Your task to perform on an android device: turn on improve location accuracy Image 0: 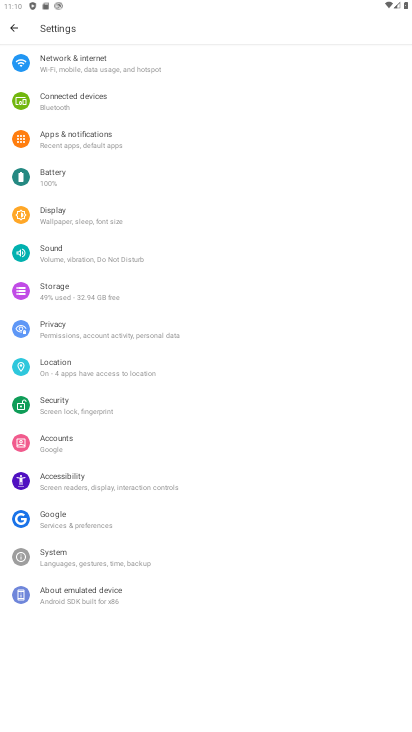
Step 0: press home button
Your task to perform on an android device: turn on improve location accuracy Image 1: 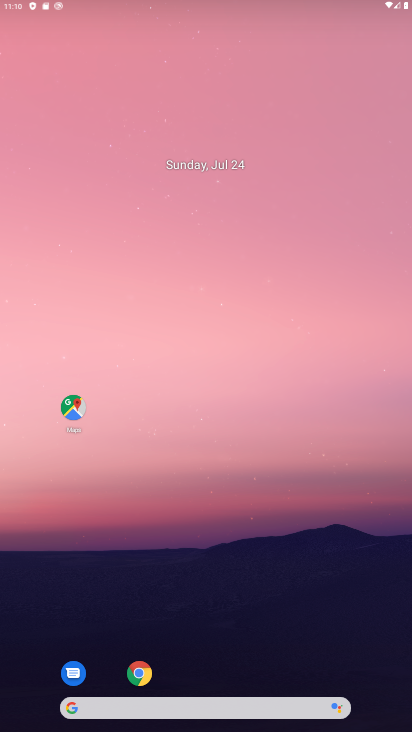
Step 1: drag from (322, 640) to (327, 200)
Your task to perform on an android device: turn on improve location accuracy Image 2: 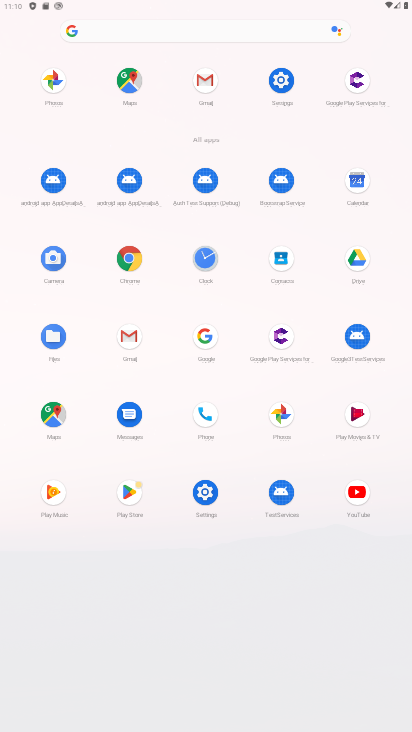
Step 2: click (207, 497)
Your task to perform on an android device: turn on improve location accuracy Image 3: 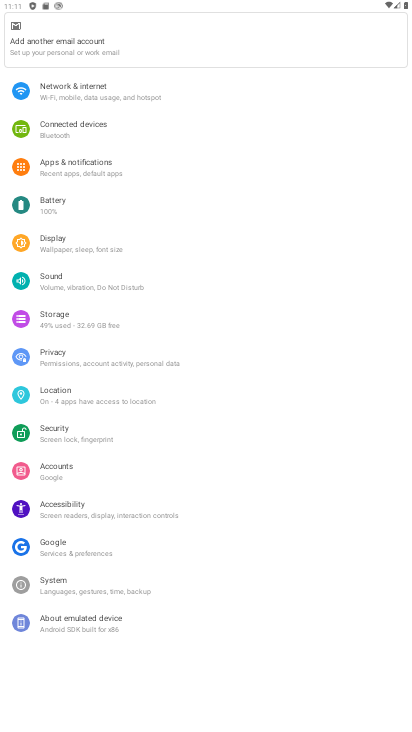
Step 3: click (209, 488)
Your task to perform on an android device: turn on improve location accuracy Image 4: 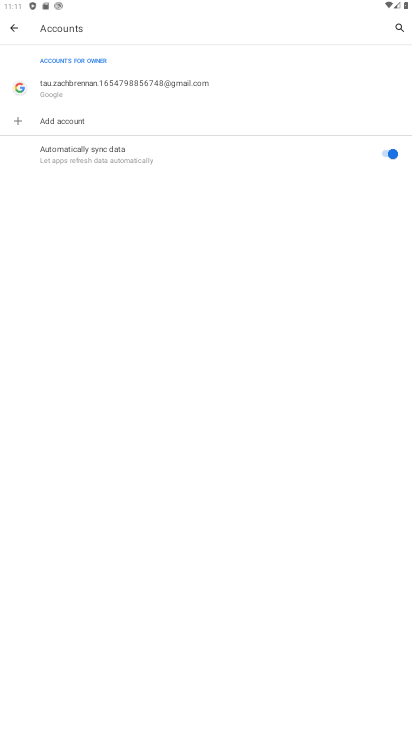
Step 4: press back button
Your task to perform on an android device: turn on improve location accuracy Image 5: 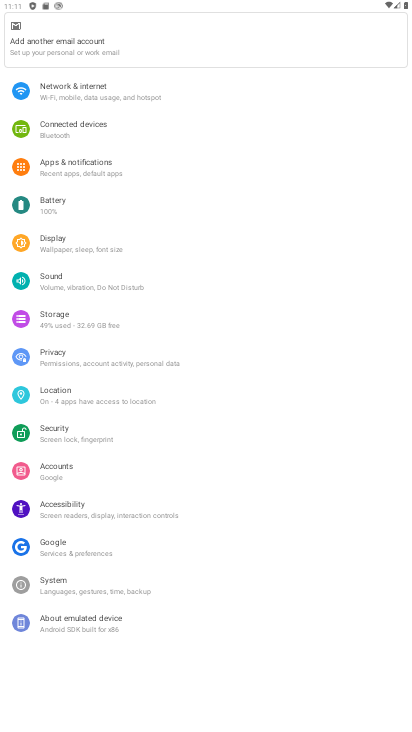
Step 5: click (114, 383)
Your task to perform on an android device: turn on improve location accuracy Image 6: 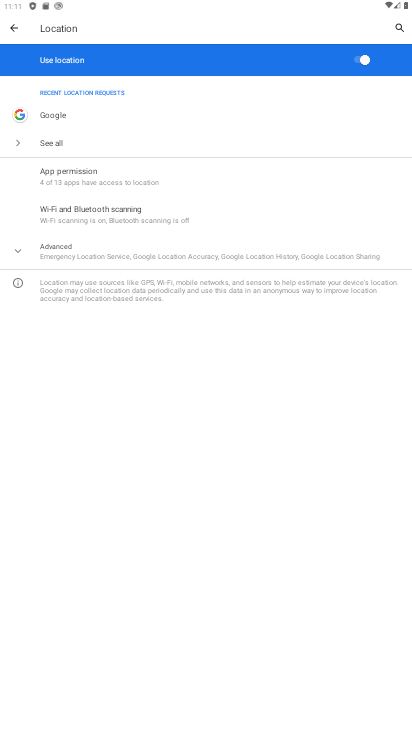
Step 6: click (131, 261)
Your task to perform on an android device: turn on improve location accuracy Image 7: 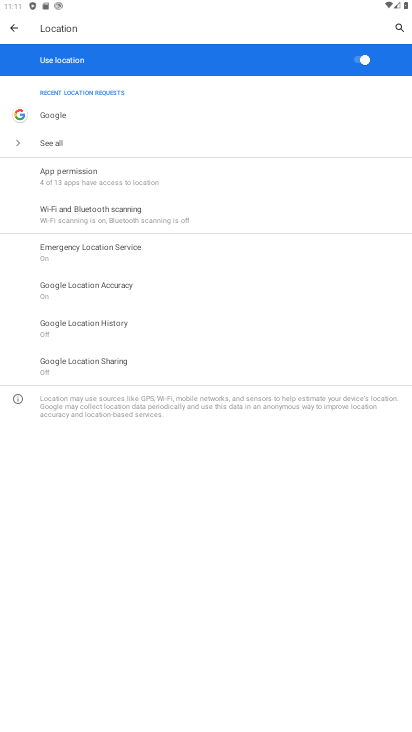
Step 7: click (124, 288)
Your task to perform on an android device: turn on improve location accuracy Image 8: 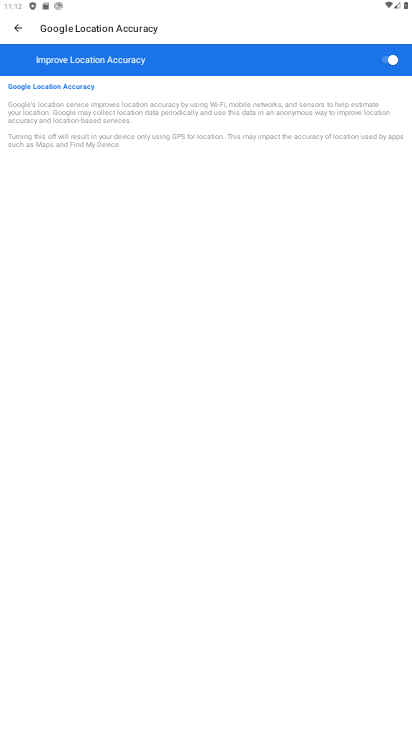
Step 8: task complete